Your task to perform on an android device: Open internet settings Image 0: 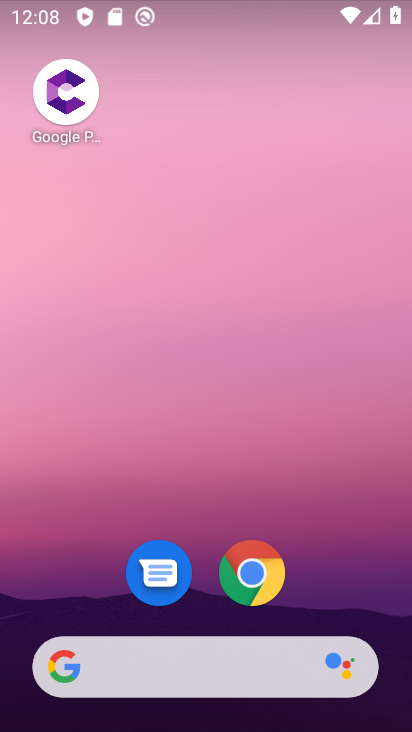
Step 0: drag from (333, 596) to (329, 21)
Your task to perform on an android device: Open internet settings Image 1: 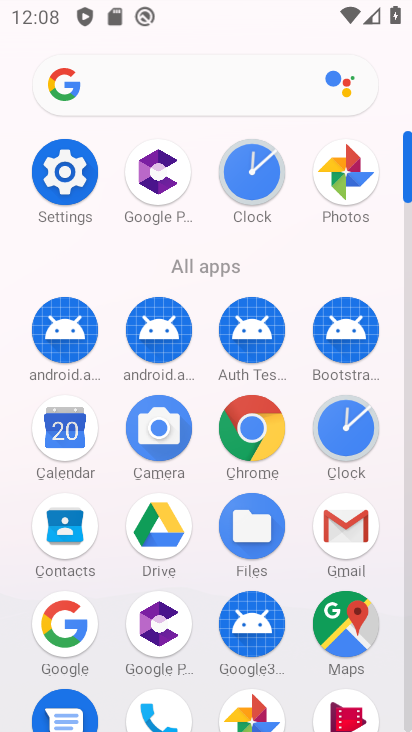
Step 1: click (53, 156)
Your task to perform on an android device: Open internet settings Image 2: 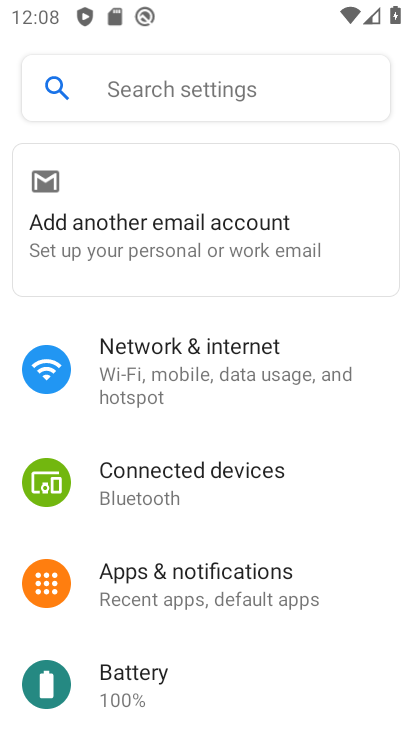
Step 2: click (166, 338)
Your task to perform on an android device: Open internet settings Image 3: 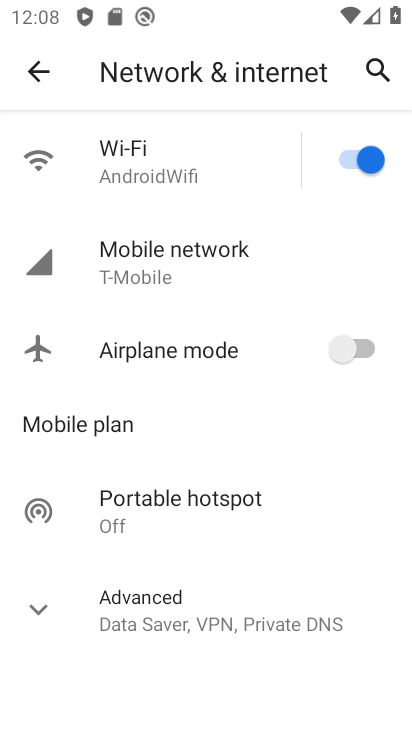
Step 3: click (117, 242)
Your task to perform on an android device: Open internet settings Image 4: 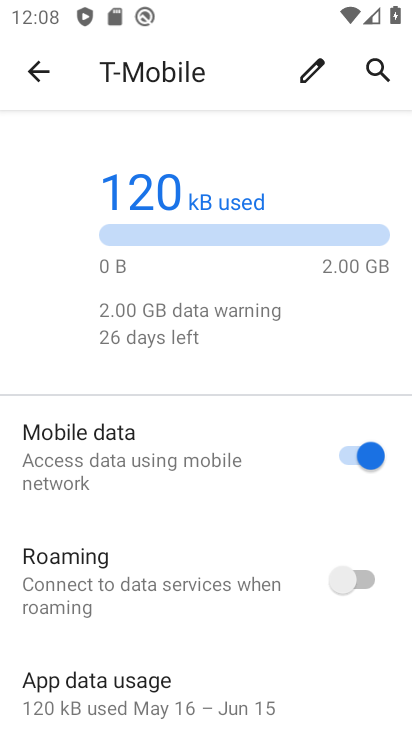
Step 4: task complete